Your task to perform on an android device: Look up the best rated drill on Lowes. Image 0: 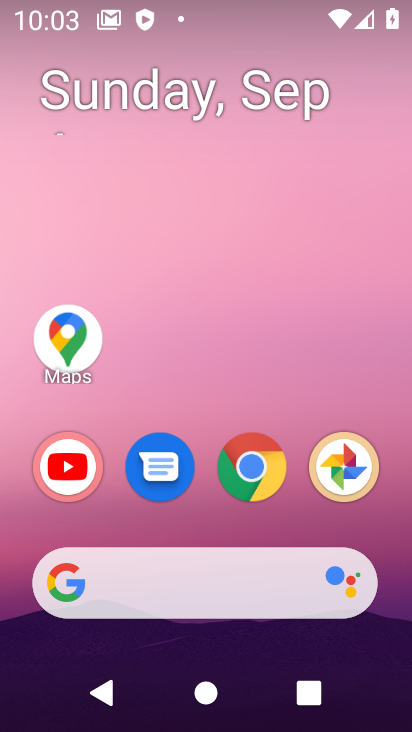
Step 0: click (256, 473)
Your task to perform on an android device: Look up the best rated drill on Lowes. Image 1: 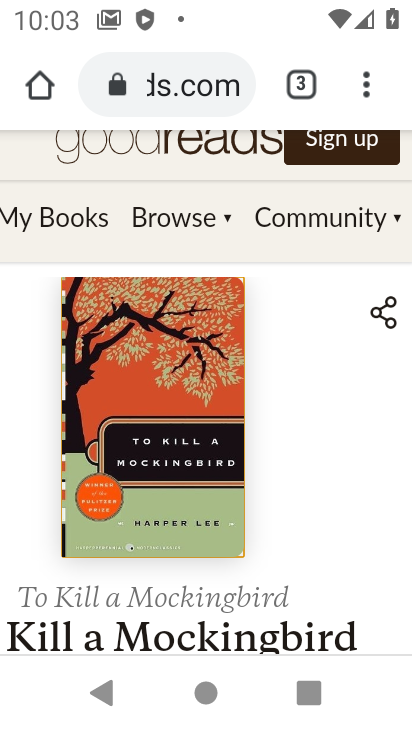
Step 1: click (184, 96)
Your task to perform on an android device: Look up the best rated drill on Lowes. Image 2: 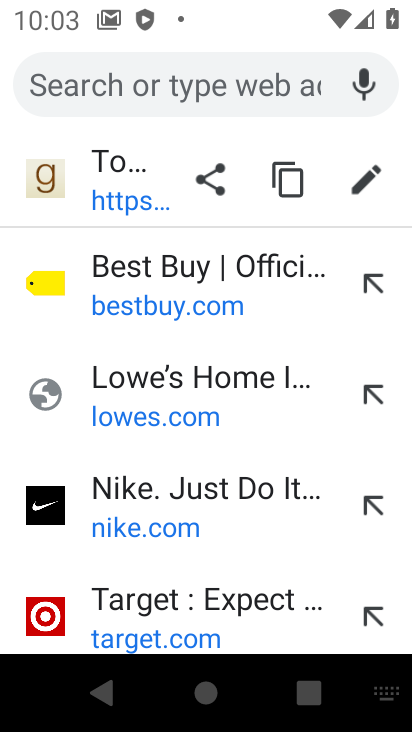
Step 2: type "lowes"
Your task to perform on an android device: Look up the best rated drill on Lowes. Image 3: 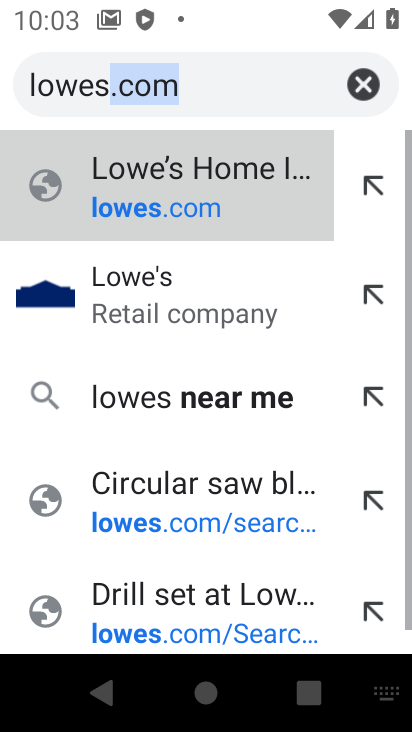
Step 3: type ""
Your task to perform on an android device: Look up the best rated drill on Lowes. Image 4: 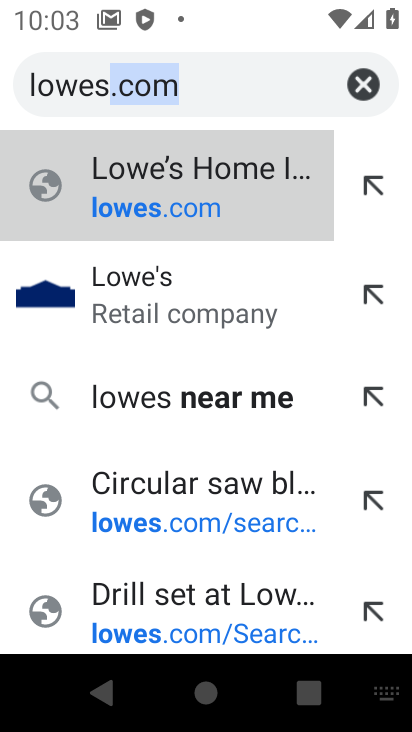
Step 4: click (172, 166)
Your task to perform on an android device: Look up the best rated drill on Lowes. Image 5: 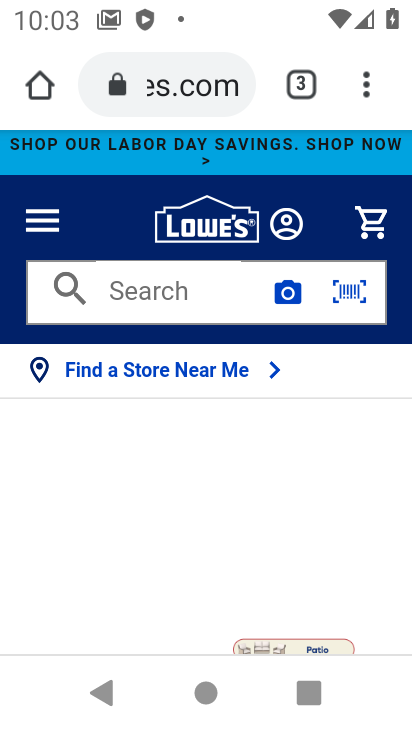
Step 5: click (158, 286)
Your task to perform on an android device: Look up the best rated drill on Lowes. Image 6: 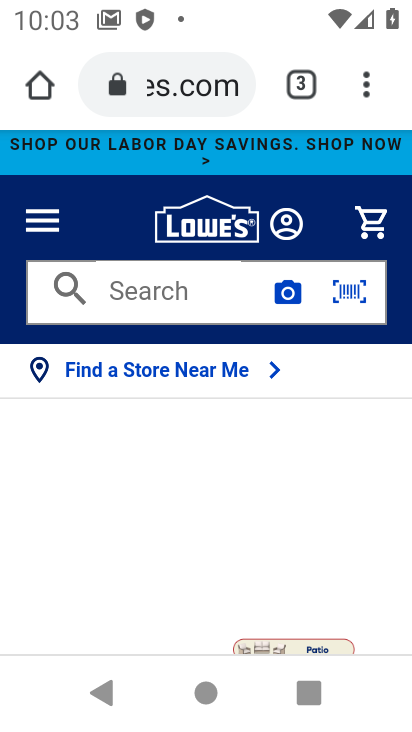
Step 6: click (156, 284)
Your task to perform on an android device: Look up the best rated drill on Lowes. Image 7: 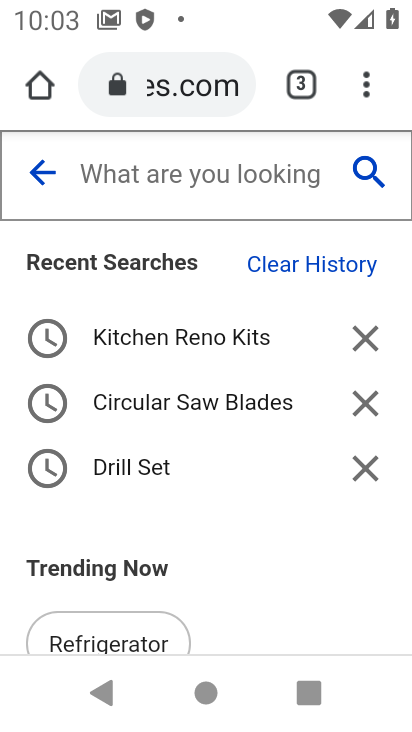
Step 7: click (224, 178)
Your task to perform on an android device: Look up the best rated drill on Lowes. Image 8: 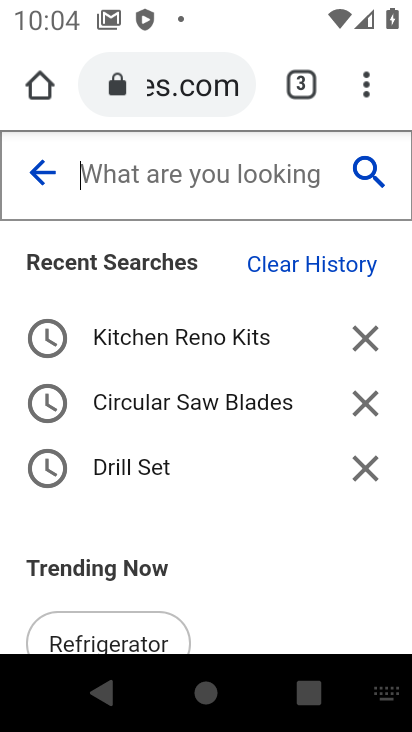
Step 8: type "rated drill"
Your task to perform on an android device: Look up the best rated drill on Lowes. Image 9: 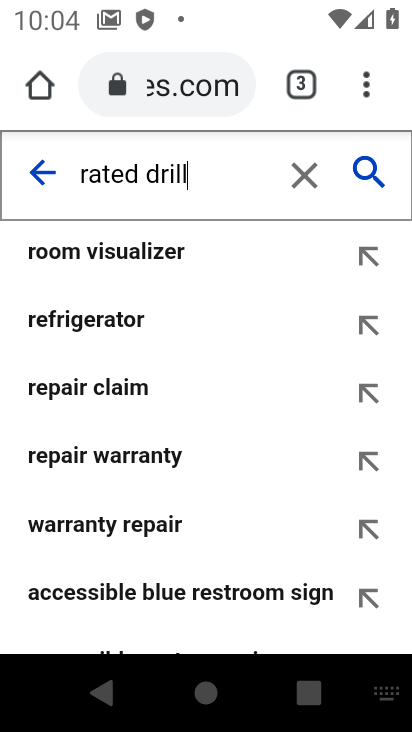
Step 9: type ""
Your task to perform on an android device: Look up the best rated drill on Lowes. Image 10: 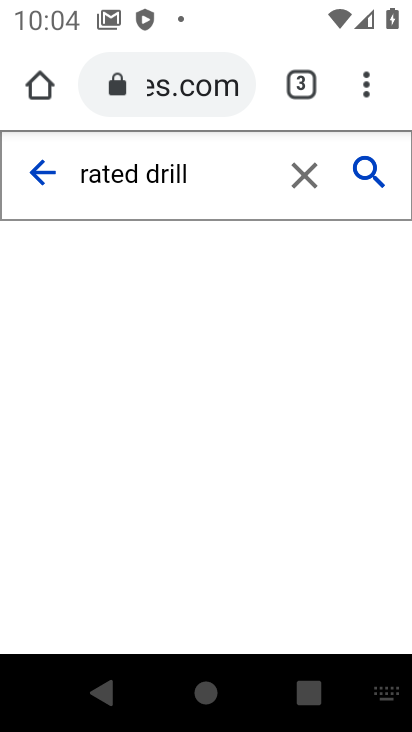
Step 10: click (355, 166)
Your task to perform on an android device: Look up the best rated drill on Lowes. Image 11: 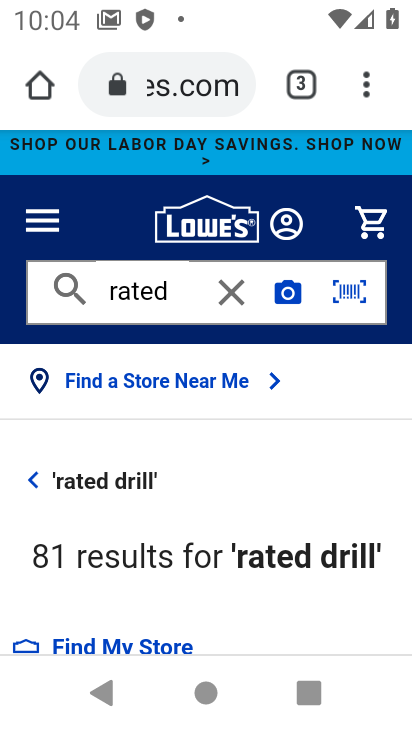
Step 11: drag from (261, 356) to (262, 316)
Your task to perform on an android device: Look up the best rated drill on Lowes. Image 12: 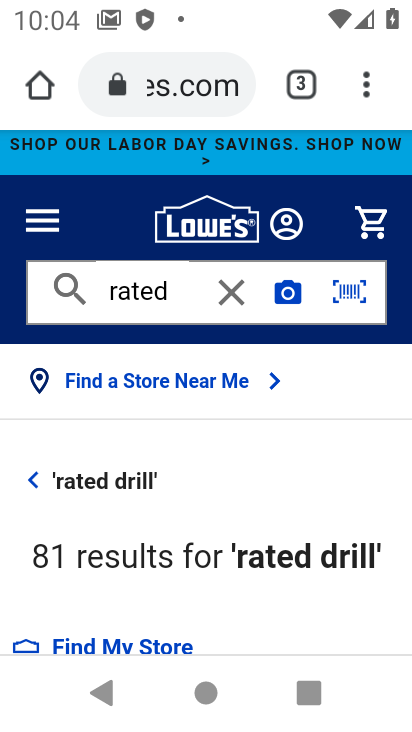
Step 12: drag from (262, 533) to (235, 267)
Your task to perform on an android device: Look up the best rated drill on Lowes. Image 13: 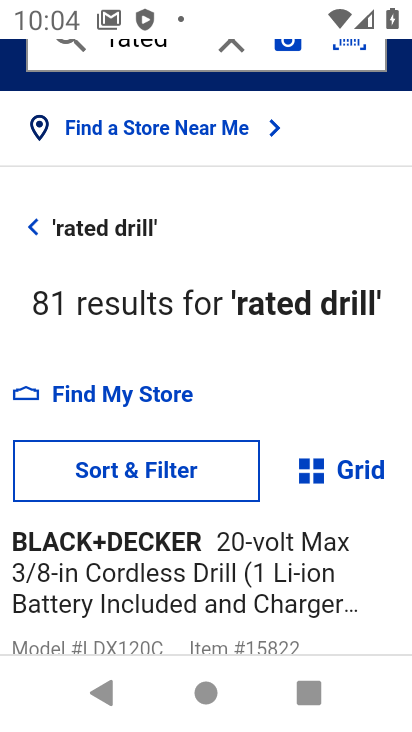
Step 13: click (171, 469)
Your task to perform on an android device: Look up the best rated drill on Lowes. Image 14: 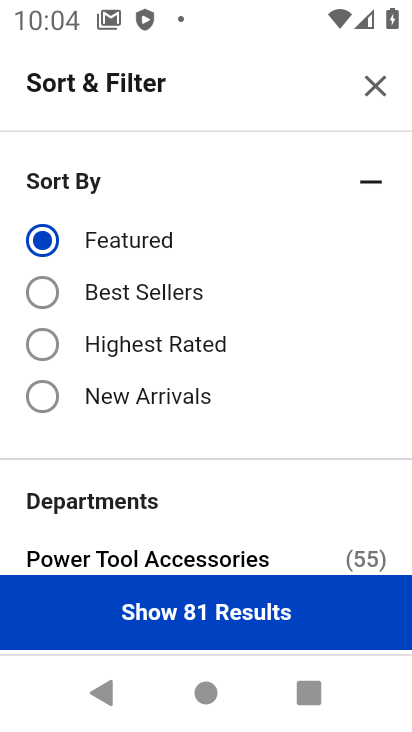
Step 14: click (44, 347)
Your task to perform on an android device: Look up the best rated drill on Lowes. Image 15: 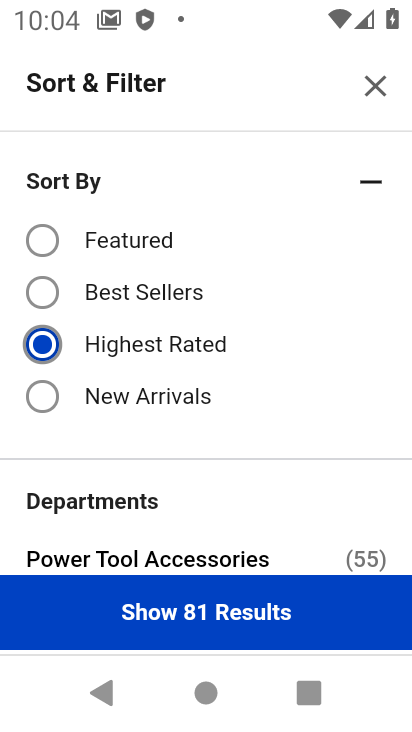
Step 15: drag from (318, 519) to (276, 92)
Your task to perform on an android device: Look up the best rated drill on Lowes. Image 16: 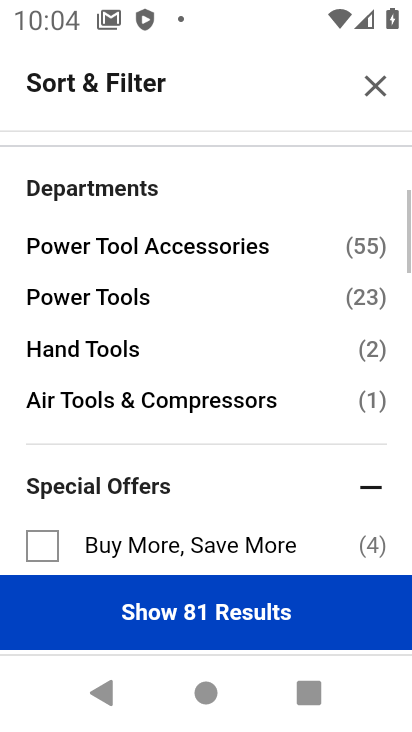
Step 16: drag from (210, 483) to (223, 106)
Your task to perform on an android device: Look up the best rated drill on Lowes. Image 17: 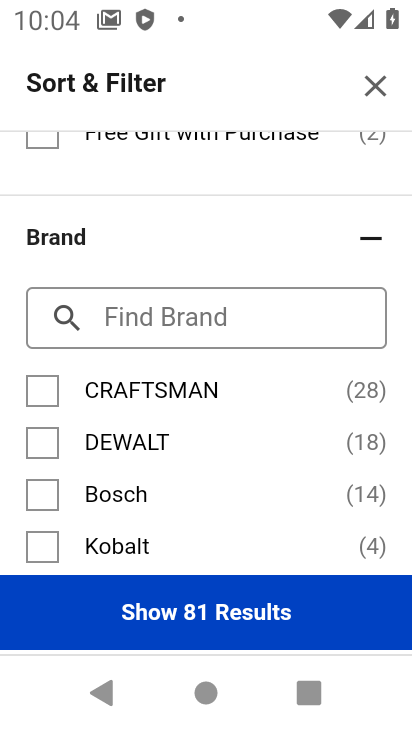
Step 17: drag from (203, 491) to (238, 84)
Your task to perform on an android device: Look up the best rated drill on Lowes. Image 18: 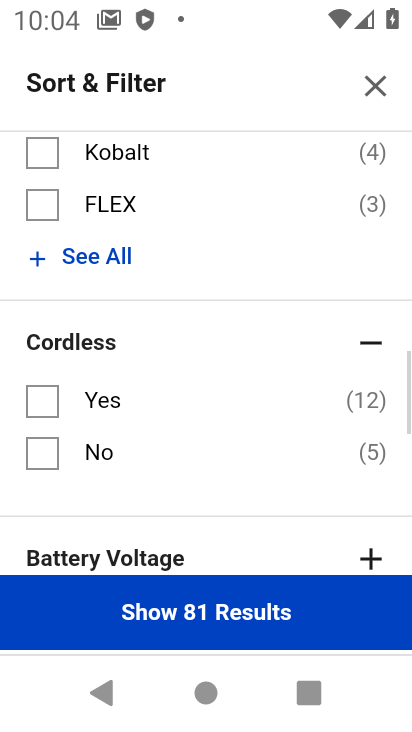
Step 18: drag from (213, 463) to (253, 145)
Your task to perform on an android device: Look up the best rated drill on Lowes. Image 19: 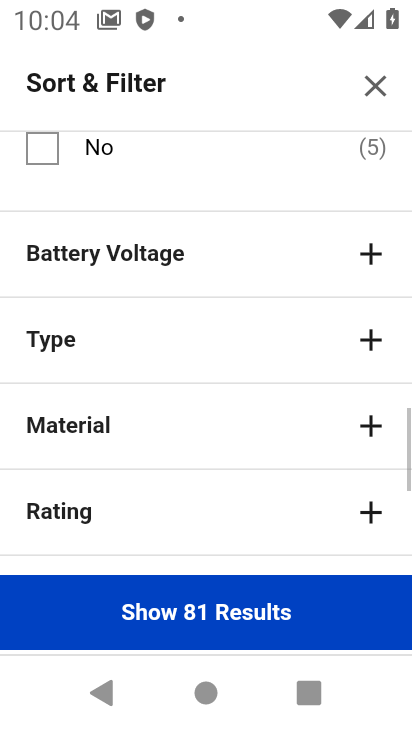
Step 19: drag from (206, 520) to (250, 320)
Your task to perform on an android device: Look up the best rated drill on Lowes. Image 20: 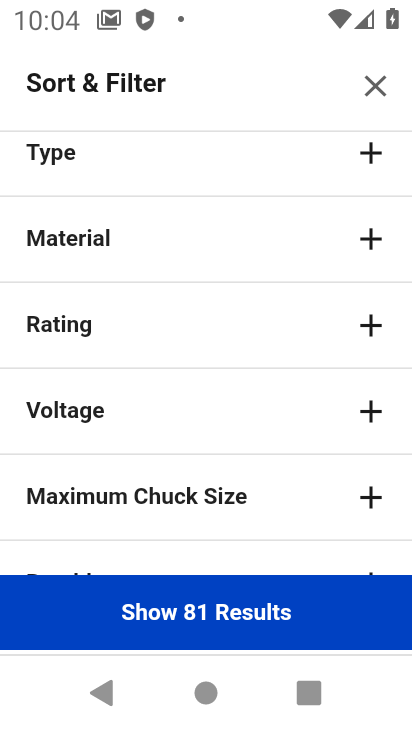
Step 20: click (377, 321)
Your task to perform on an android device: Look up the best rated drill on Lowes. Image 21: 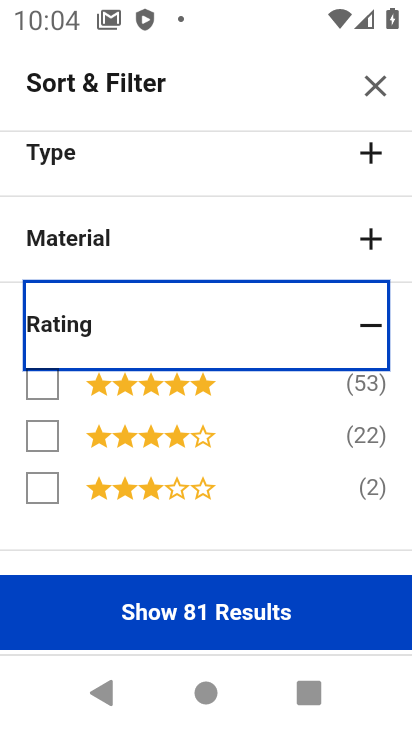
Step 21: click (49, 377)
Your task to perform on an android device: Look up the best rated drill on Lowes. Image 22: 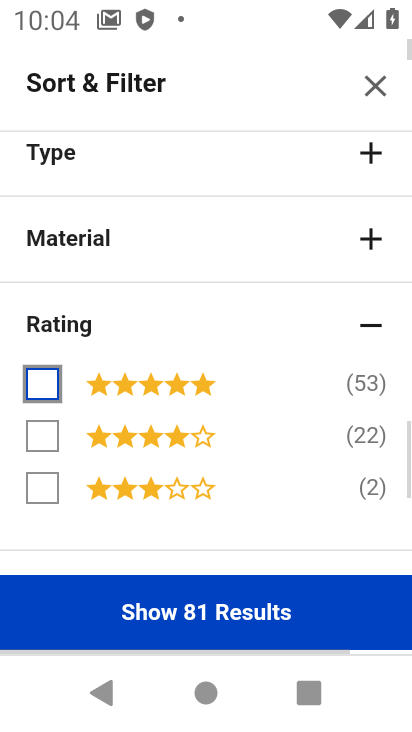
Step 22: click (162, 622)
Your task to perform on an android device: Look up the best rated drill on Lowes. Image 23: 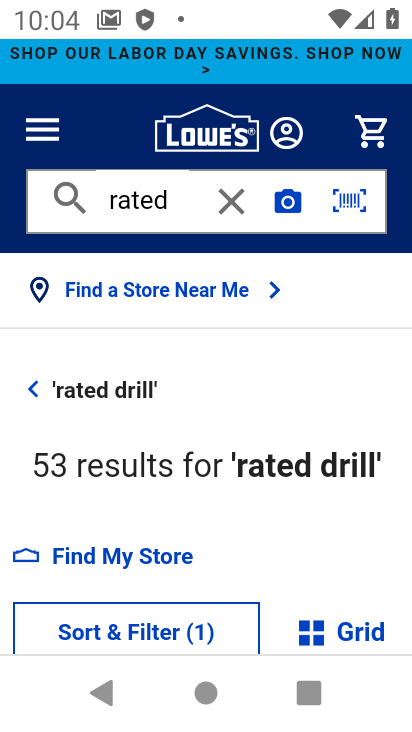
Step 23: task complete